Your task to perform on an android device: See recent photos Image 0: 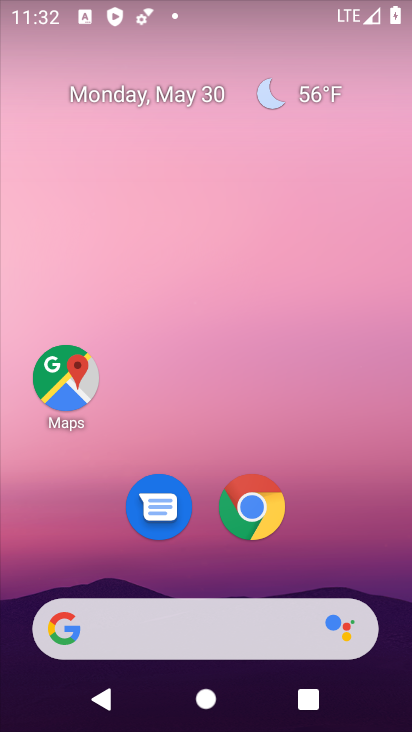
Step 0: drag from (399, 574) to (247, 50)
Your task to perform on an android device: See recent photos Image 1: 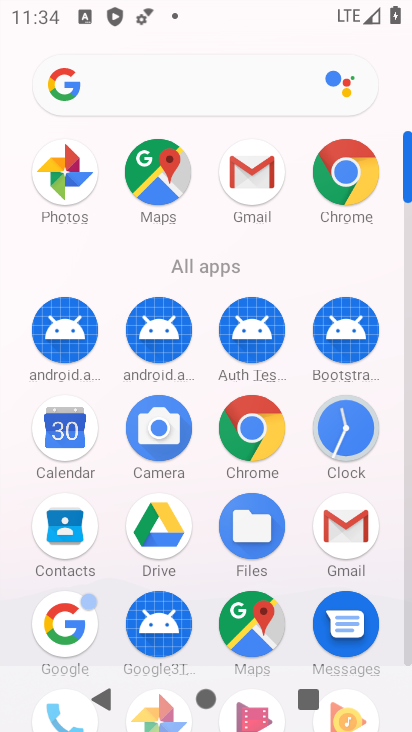
Step 1: drag from (264, 563) to (236, 185)
Your task to perform on an android device: See recent photos Image 2: 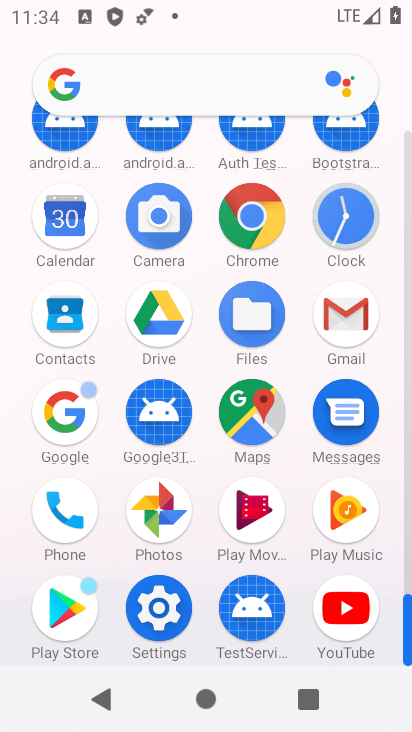
Step 2: click (161, 507)
Your task to perform on an android device: See recent photos Image 3: 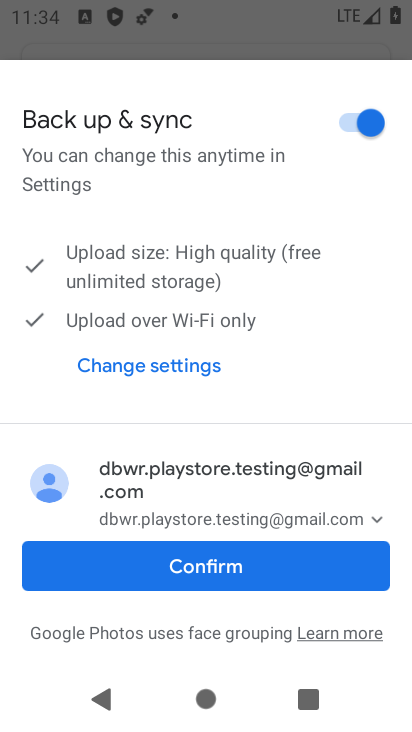
Step 3: click (194, 558)
Your task to perform on an android device: See recent photos Image 4: 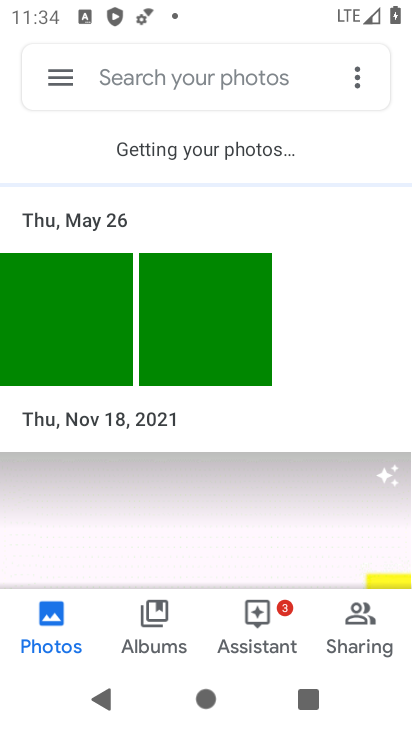
Step 4: click (88, 304)
Your task to perform on an android device: See recent photos Image 5: 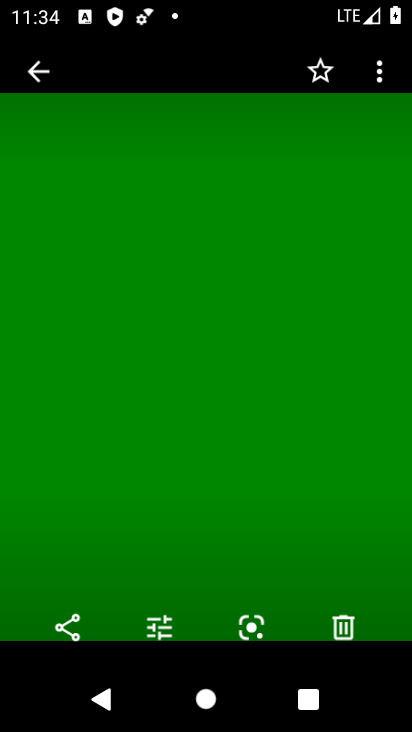
Step 5: task complete